Your task to perform on an android device: open app "WhatsApp Messenger" (install if not already installed) Image 0: 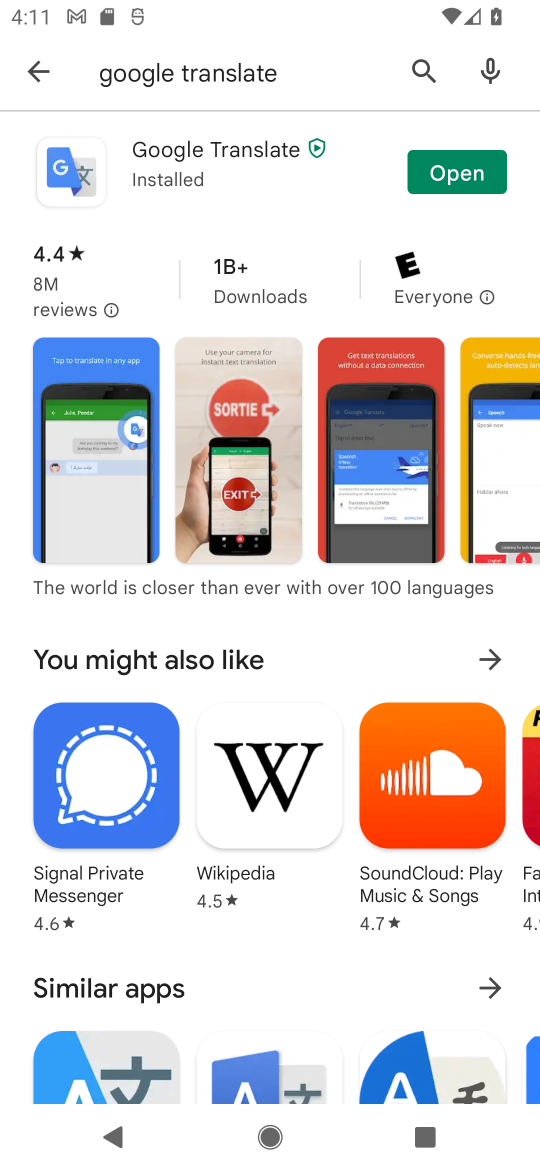
Step 0: click (199, 66)
Your task to perform on an android device: open app "WhatsApp Messenger" (install if not already installed) Image 1: 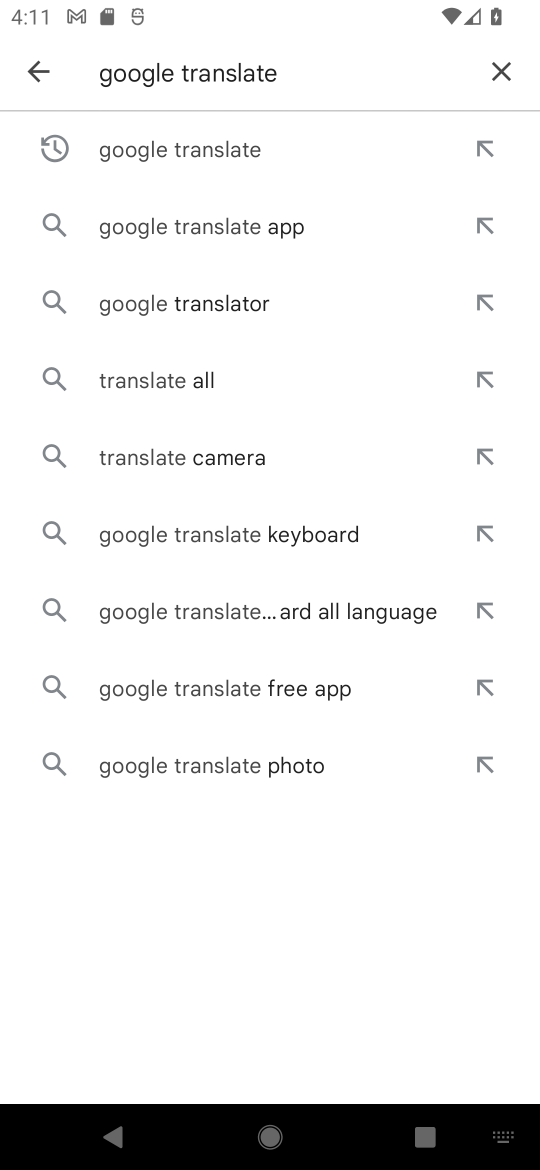
Step 1: click (482, 70)
Your task to perform on an android device: open app "WhatsApp Messenger" (install if not already installed) Image 2: 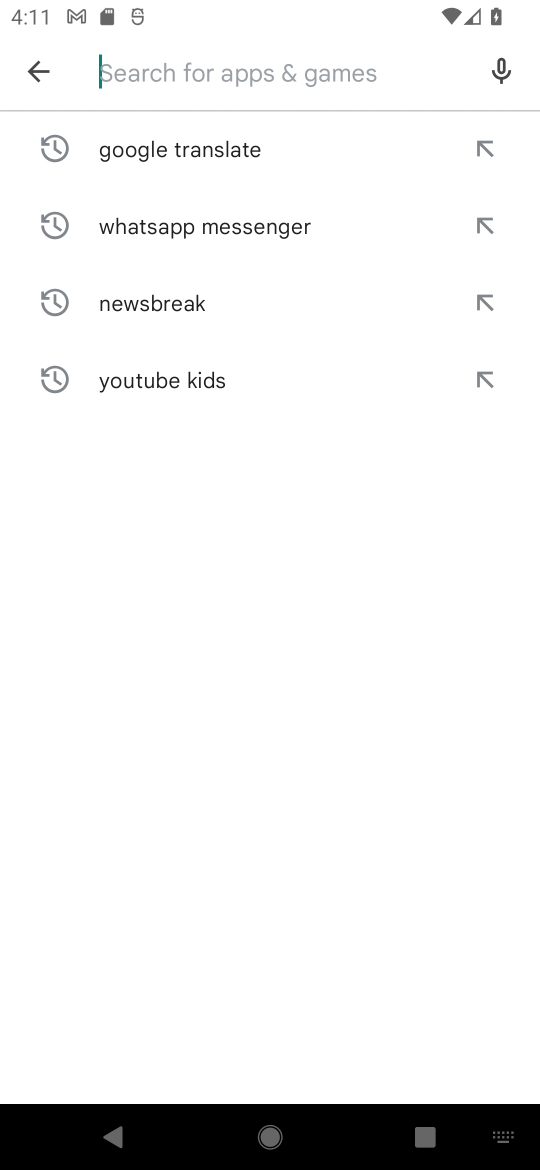
Step 2: type "whatsapp messenger"
Your task to perform on an android device: open app "WhatsApp Messenger" (install if not already installed) Image 3: 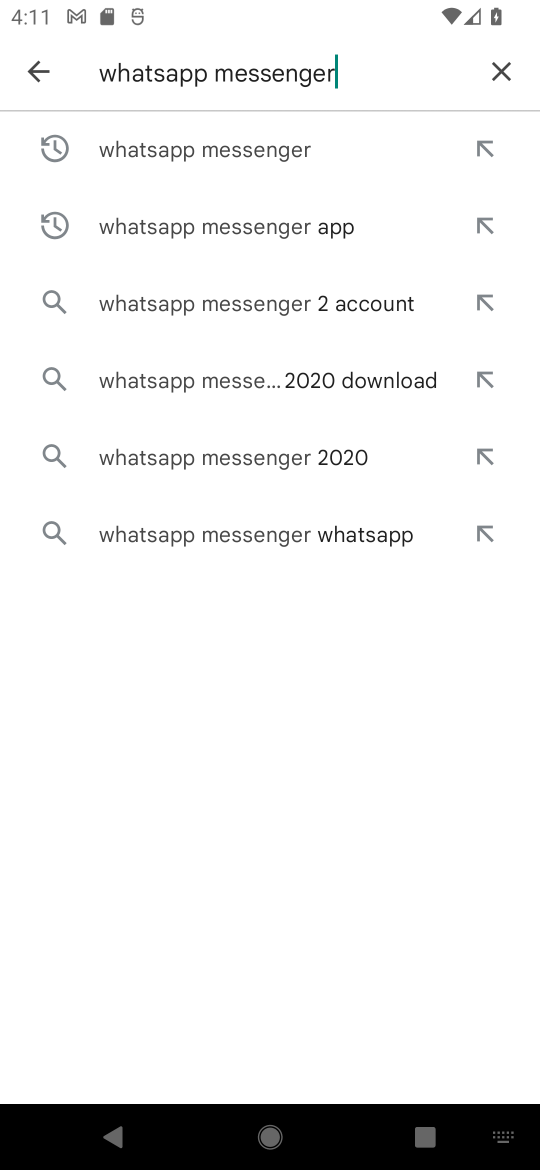
Step 3: click (229, 159)
Your task to perform on an android device: open app "WhatsApp Messenger" (install if not already installed) Image 4: 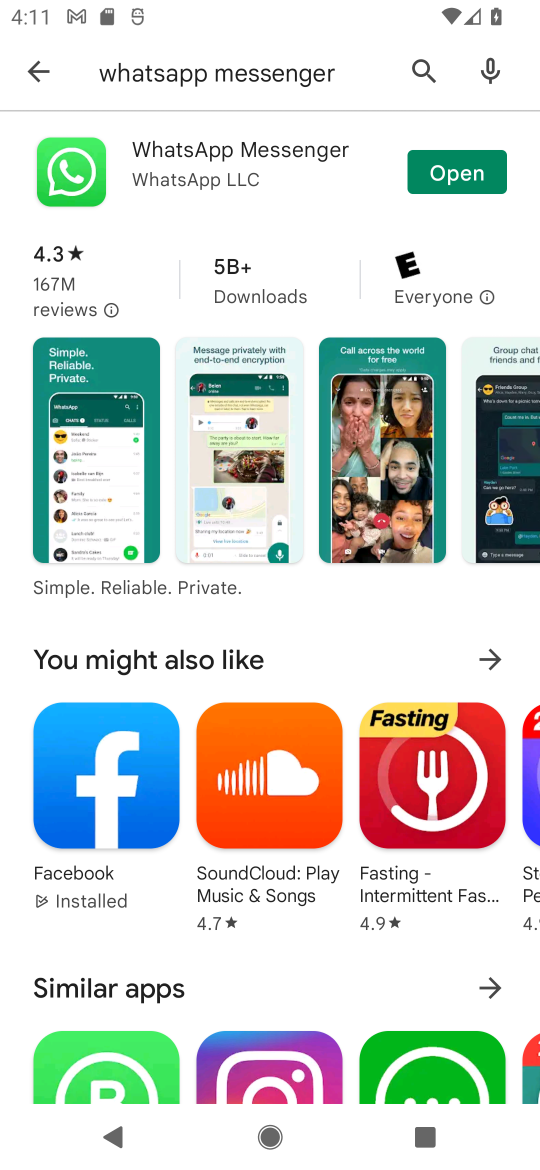
Step 4: click (486, 183)
Your task to perform on an android device: open app "WhatsApp Messenger" (install if not already installed) Image 5: 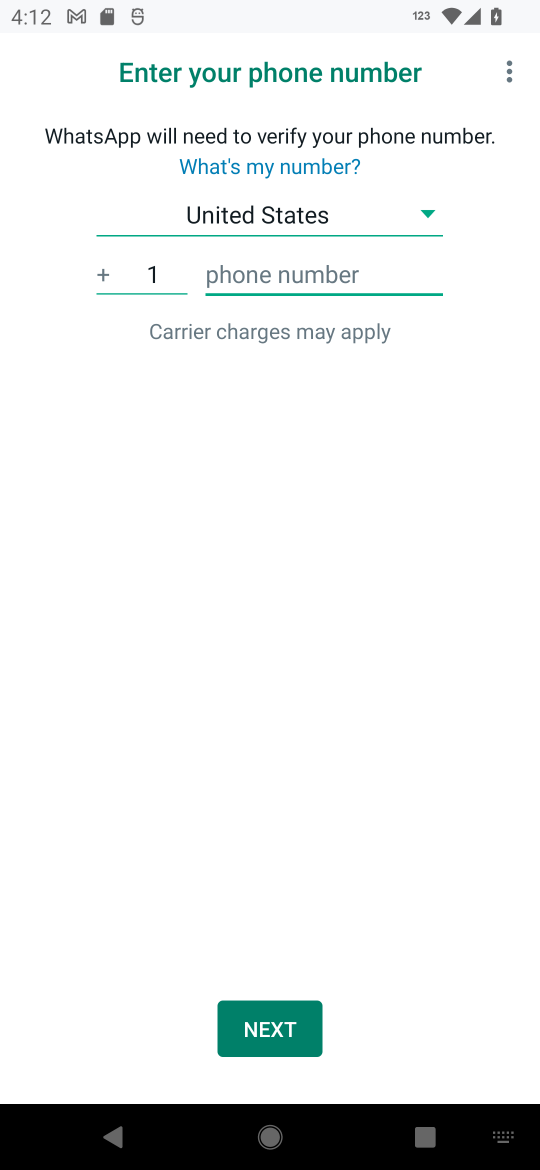
Step 5: task complete